Your task to perform on an android device: uninstall "Firefox Browser" Image 0: 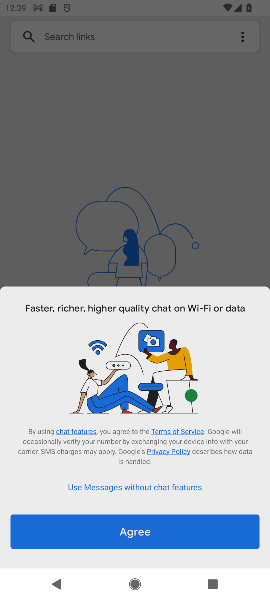
Step 0: press home button
Your task to perform on an android device: uninstall "Firefox Browser" Image 1: 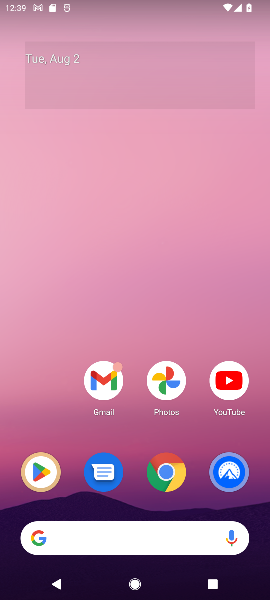
Step 1: click (31, 472)
Your task to perform on an android device: uninstall "Firefox Browser" Image 2: 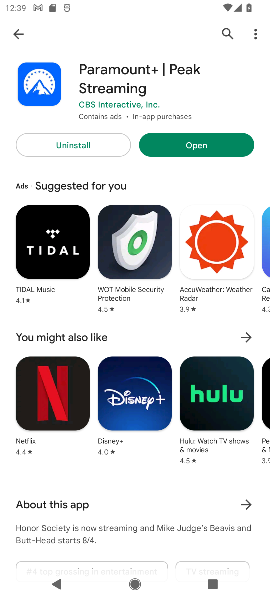
Step 2: click (230, 25)
Your task to perform on an android device: uninstall "Firefox Browser" Image 3: 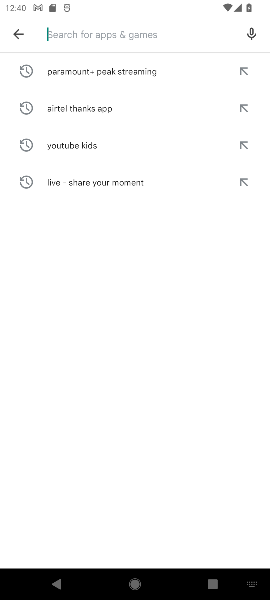
Step 3: type "firefox browser"
Your task to perform on an android device: uninstall "Firefox Browser" Image 4: 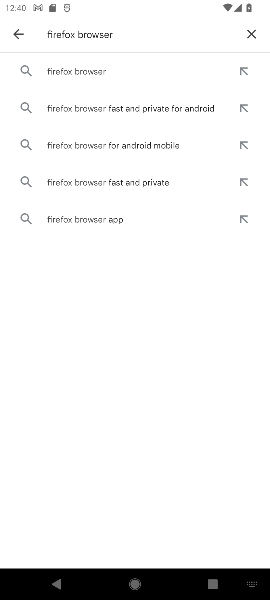
Step 4: click (94, 69)
Your task to perform on an android device: uninstall "Firefox Browser" Image 5: 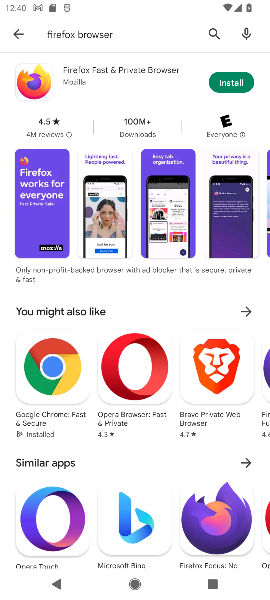
Step 5: click (100, 69)
Your task to perform on an android device: uninstall "Firefox Browser" Image 6: 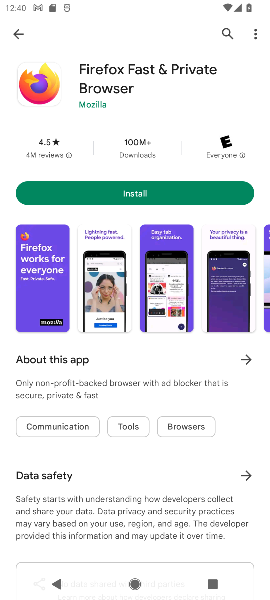
Step 6: task complete